Your task to perform on an android device: Open the calendar app, open the side menu, and click the "Day" option Image 0: 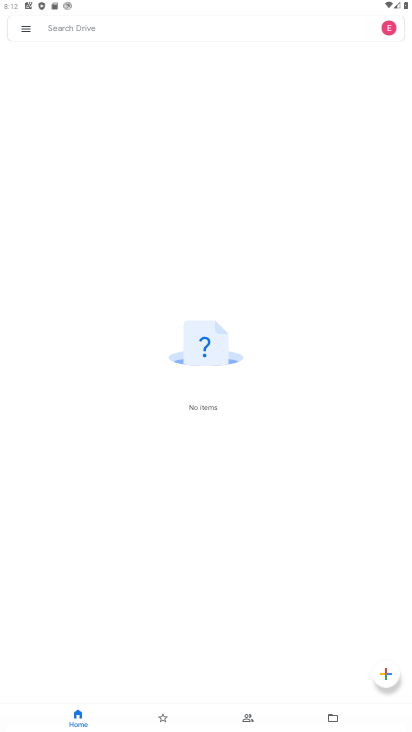
Step 0: press home button
Your task to perform on an android device: Open the calendar app, open the side menu, and click the "Day" option Image 1: 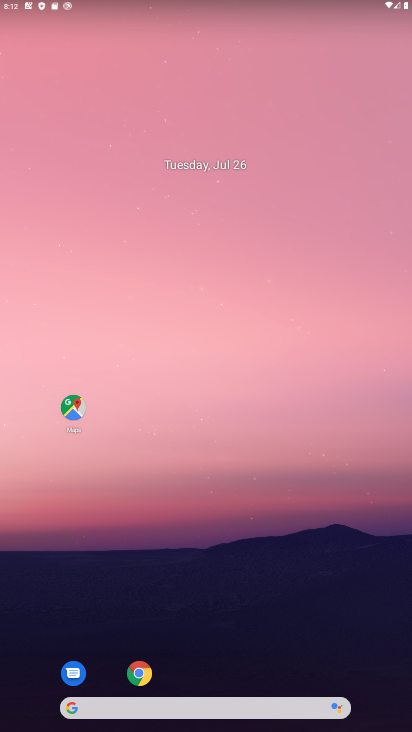
Step 1: drag from (268, 616) to (306, 1)
Your task to perform on an android device: Open the calendar app, open the side menu, and click the "Day" option Image 2: 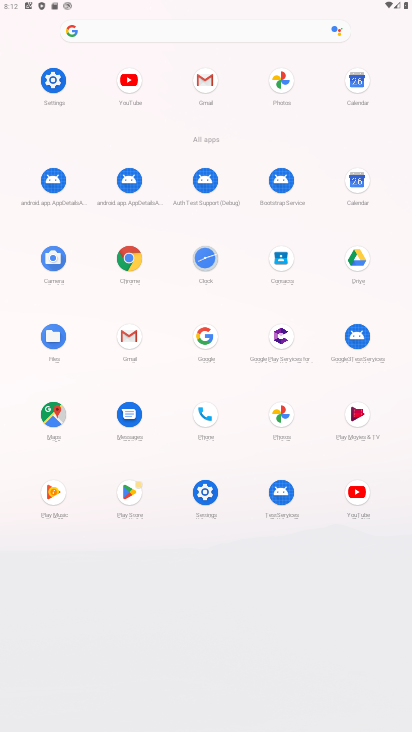
Step 2: click (364, 183)
Your task to perform on an android device: Open the calendar app, open the side menu, and click the "Day" option Image 3: 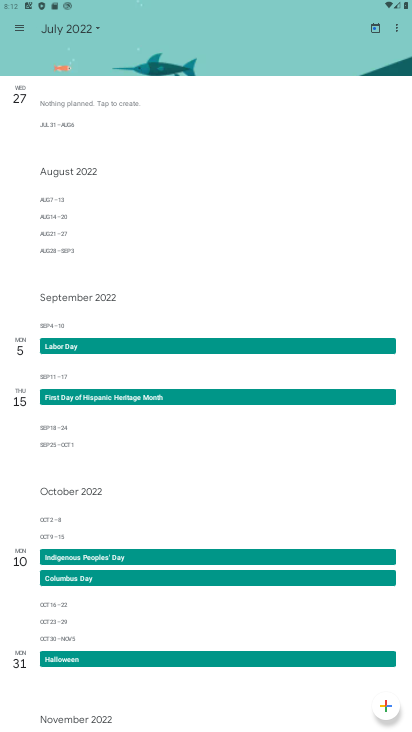
Step 3: click (24, 34)
Your task to perform on an android device: Open the calendar app, open the side menu, and click the "Day" option Image 4: 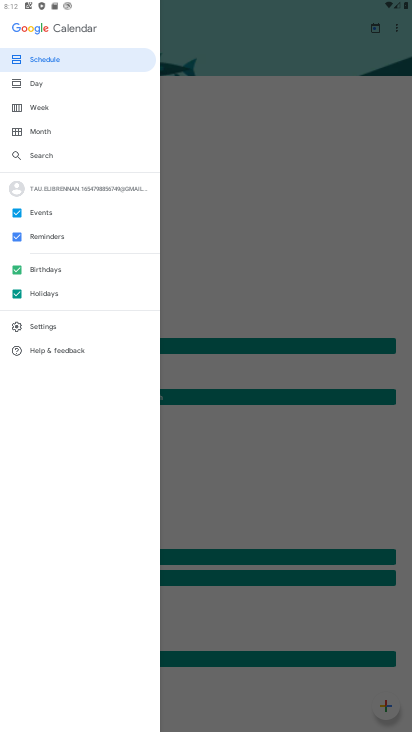
Step 4: click (40, 93)
Your task to perform on an android device: Open the calendar app, open the side menu, and click the "Day" option Image 5: 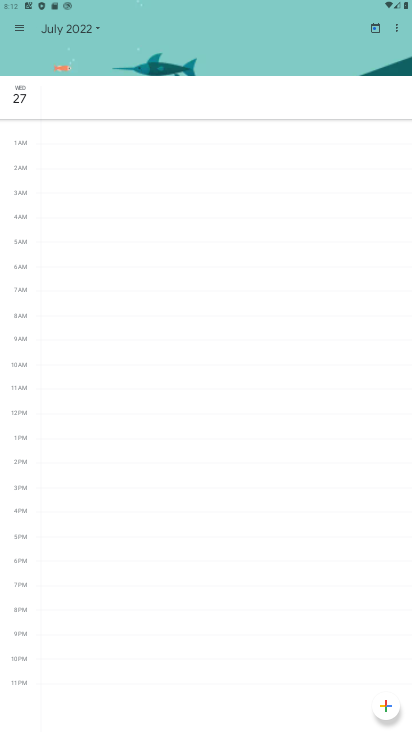
Step 5: task complete